Your task to perform on an android device: open app "Upside-Cash back on gas & food" Image 0: 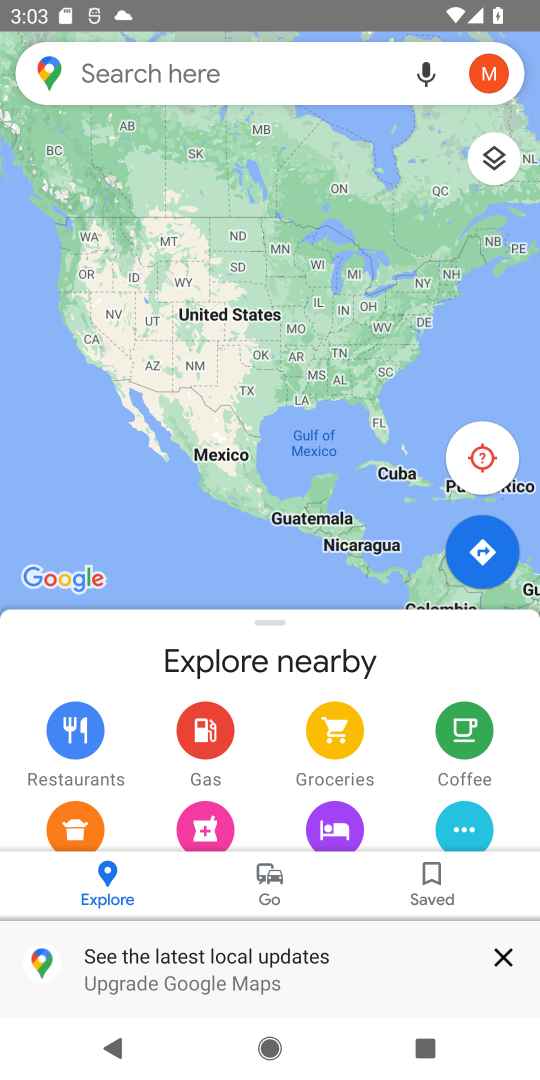
Step 0: press home button
Your task to perform on an android device: open app "Upside-Cash back on gas & food" Image 1: 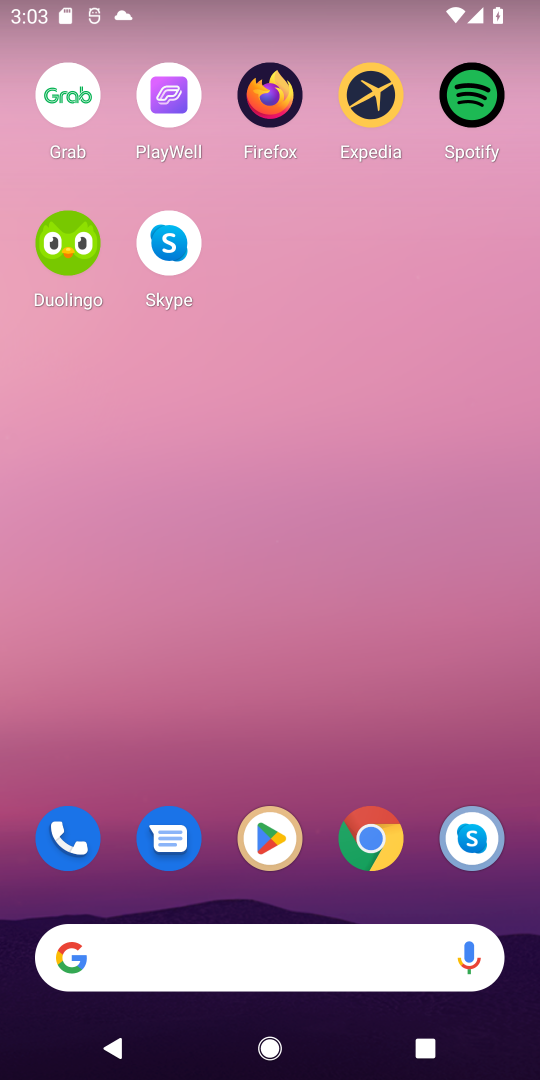
Step 1: click (280, 857)
Your task to perform on an android device: open app "Upside-Cash back on gas & food" Image 2: 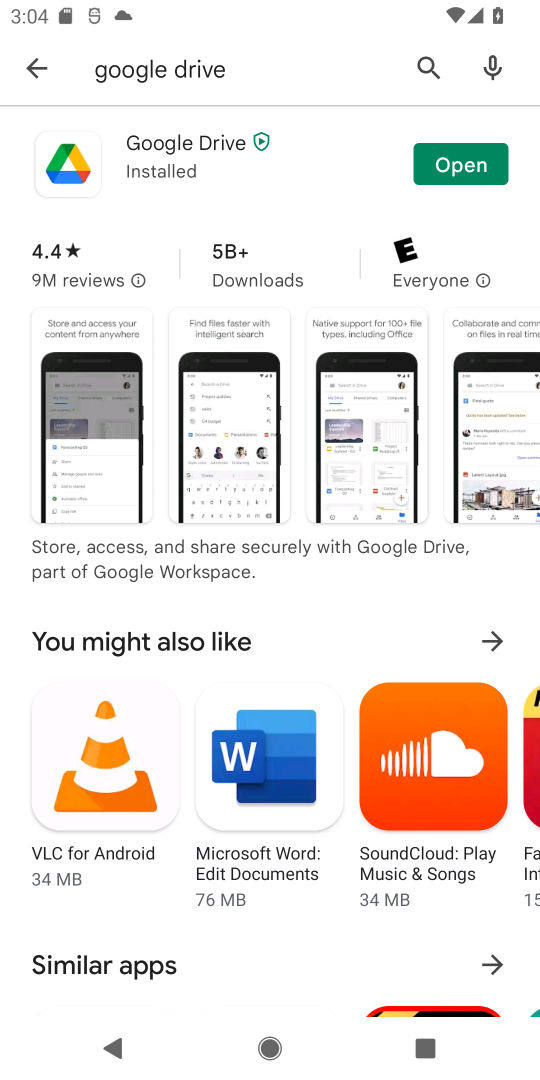
Step 2: click (32, 50)
Your task to perform on an android device: open app "Upside-Cash back on gas & food" Image 3: 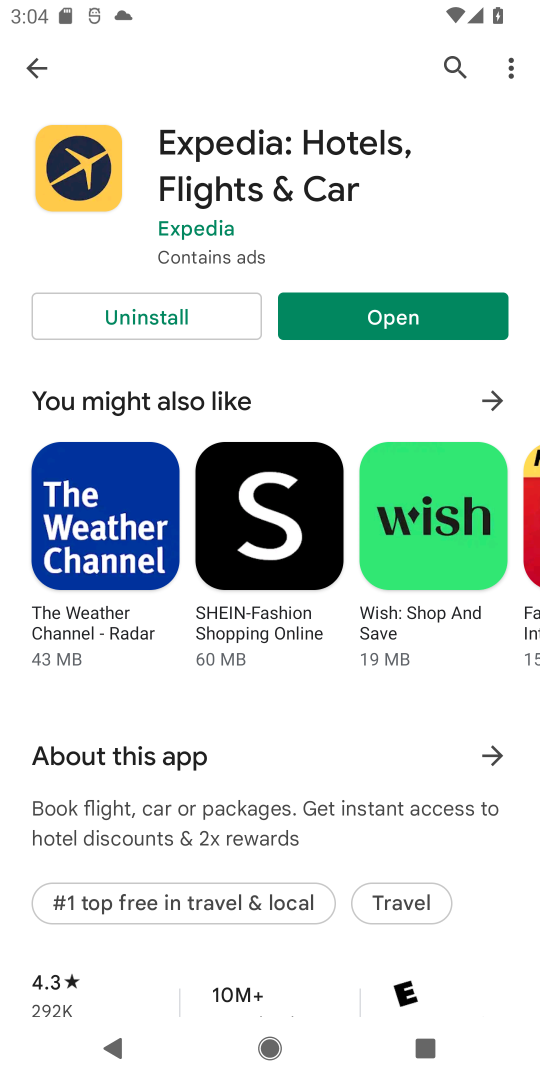
Step 3: click (447, 66)
Your task to perform on an android device: open app "Upside-Cash back on gas & food" Image 4: 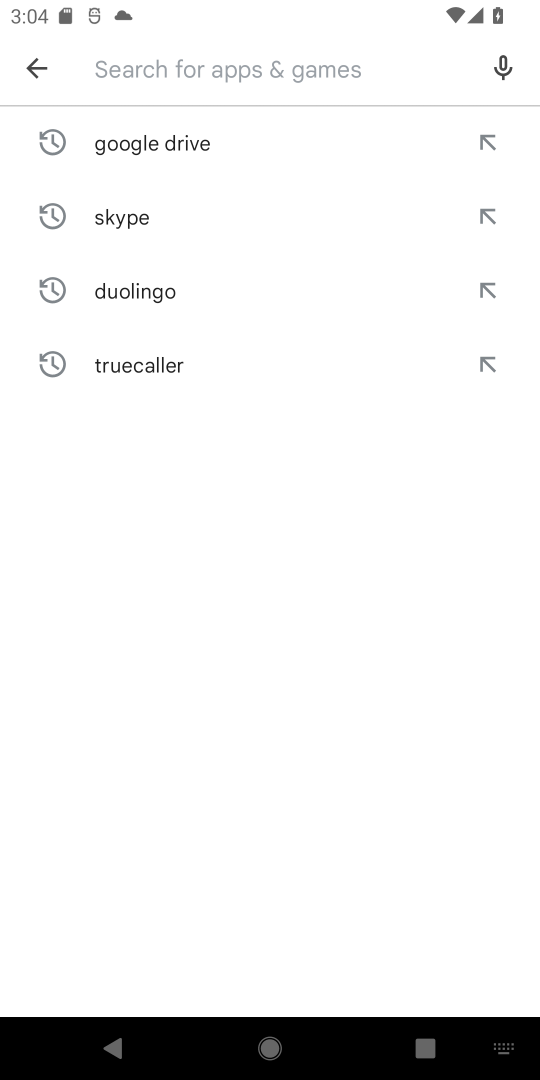
Step 4: type "Upside"
Your task to perform on an android device: open app "Upside-Cash back on gas & food" Image 5: 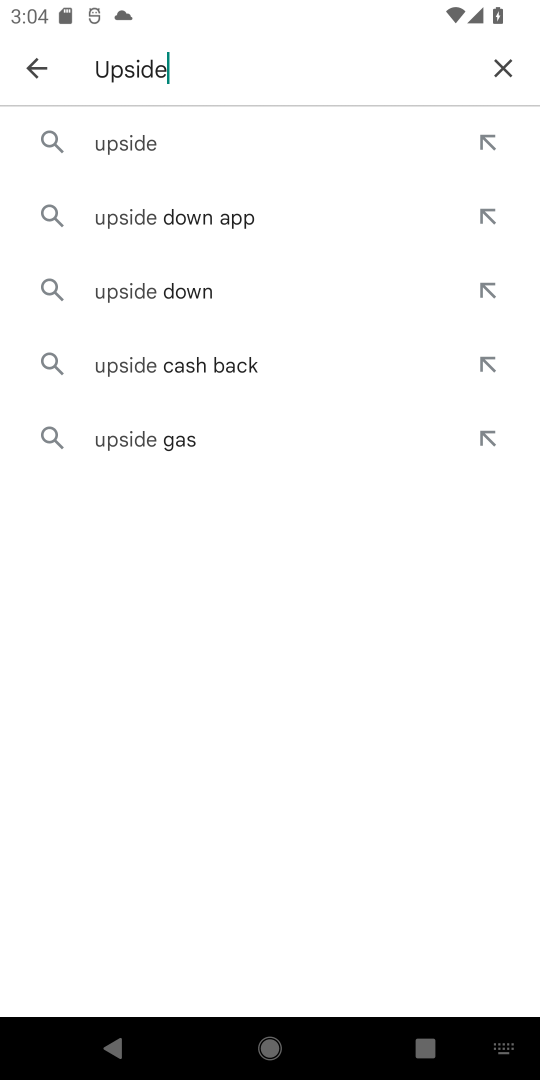
Step 5: click (145, 145)
Your task to perform on an android device: open app "Upside-Cash back on gas & food" Image 6: 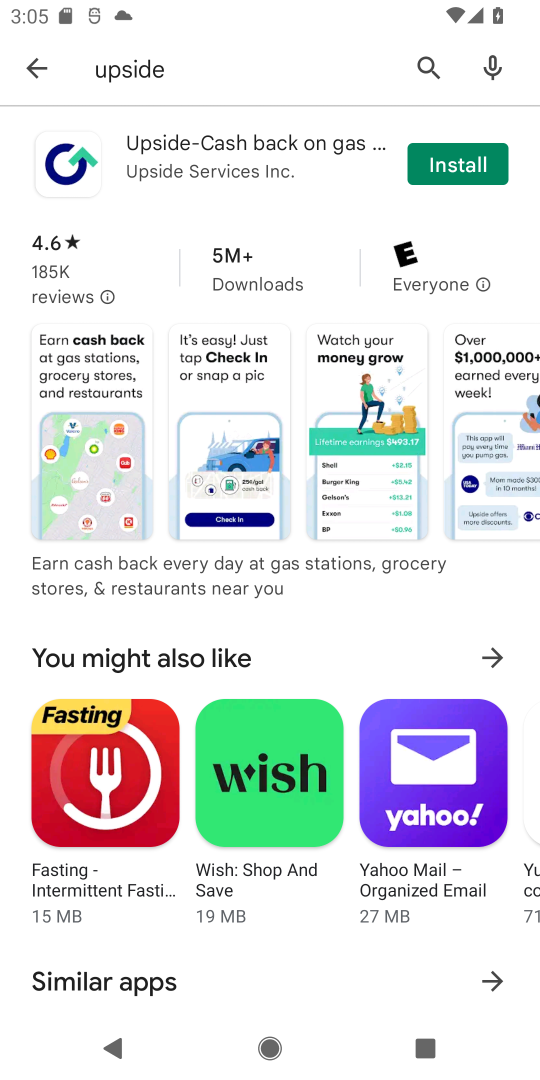
Step 6: task complete